Your task to perform on an android device: Open Android settings Image 0: 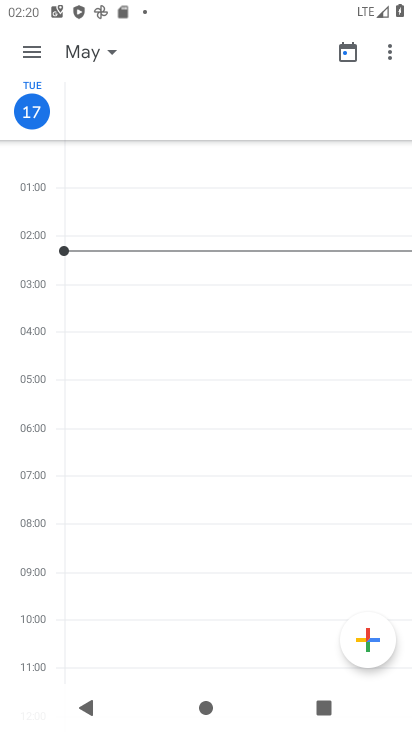
Step 0: press home button
Your task to perform on an android device: Open Android settings Image 1: 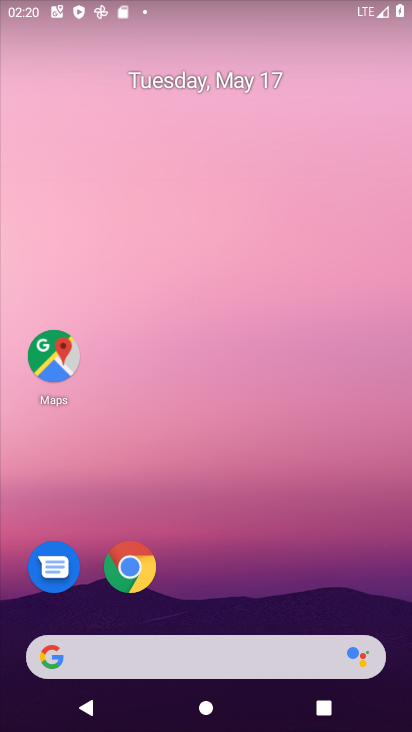
Step 1: drag from (380, 619) to (298, 131)
Your task to perform on an android device: Open Android settings Image 2: 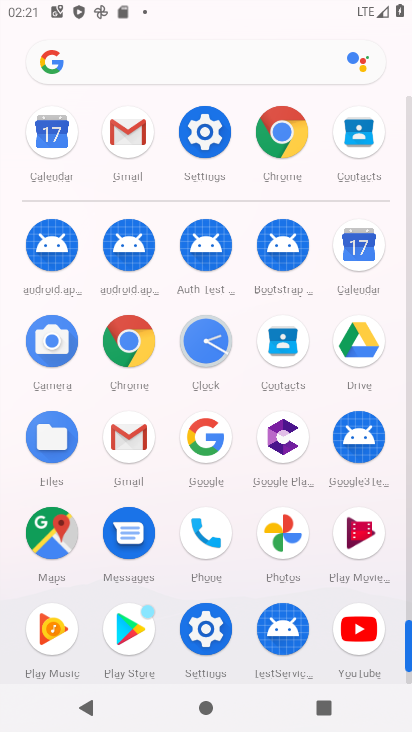
Step 2: click (205, 629)
Your task to perform on an android device: Open Android settings Image 3: 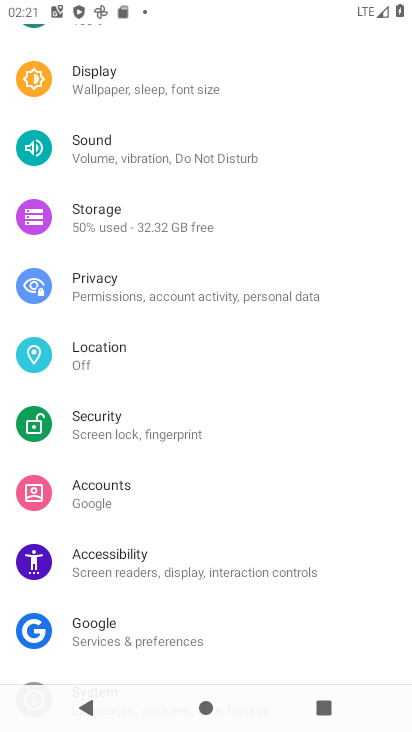
Step 3: drag from (212, 607) to (207, 231)
Your task to perform on an android device: Open Android settings Image 4: 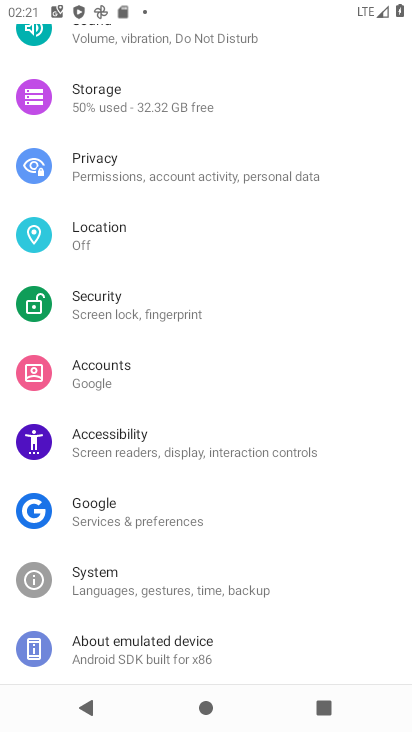
Step 4: click (122, 663)
Your task to perform on an android device: Open Android settings Image 5: 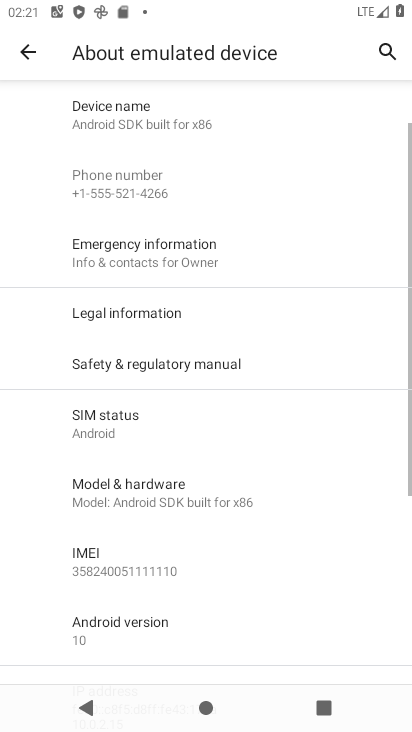
Step 5: task complete